Your task to perform on an android device: Open display settings Image 0: 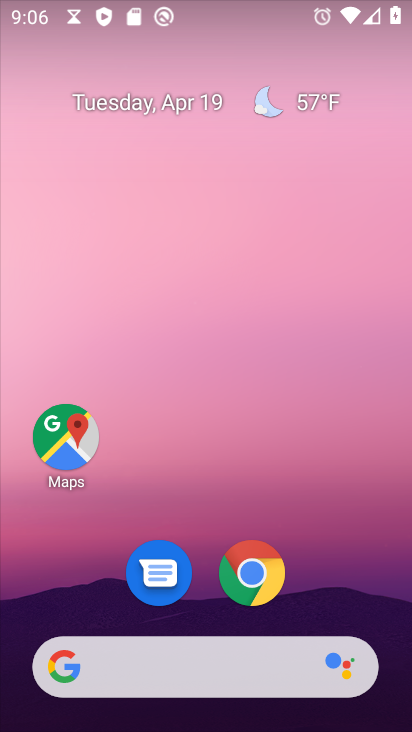
Step 0: drag from (325, 601) to (269, 110)
Your task to perform on an android device: Open display settings Image 1: 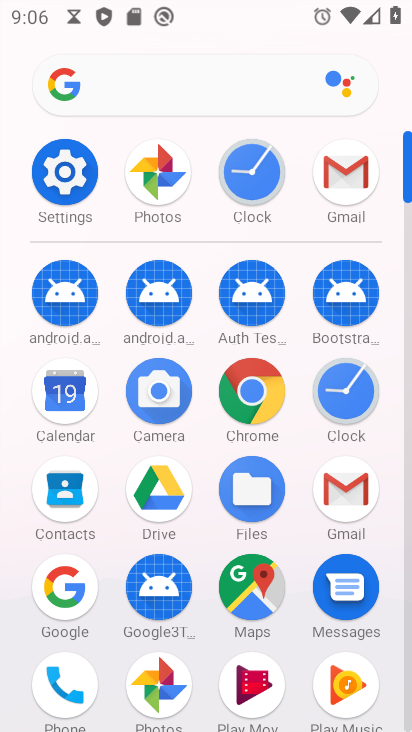
Step 1: click (57, 169)
Your task to perform on an android device: Open display settings Image 2: 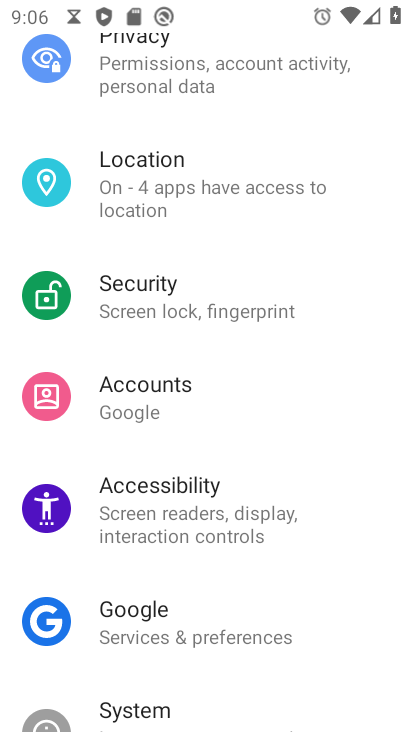
Step 2: drag from (259, 199) to (238, 647)
Your task to perform on an android device: Open display settings Image 3: 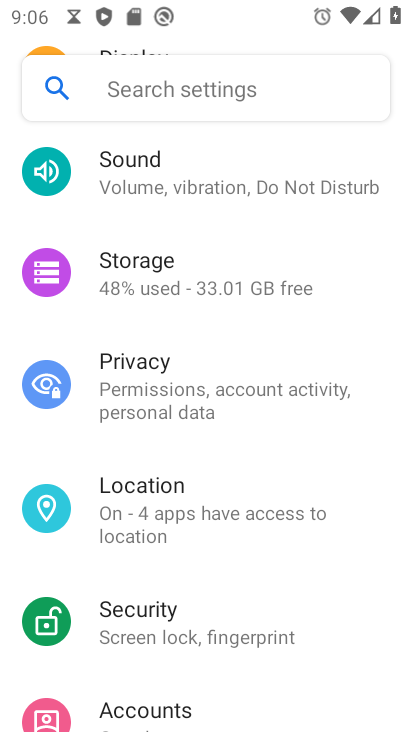
Step 3: drag from (237, 206) to (177, 569)
Your task to perform on an android device: Open display settings Image 4: 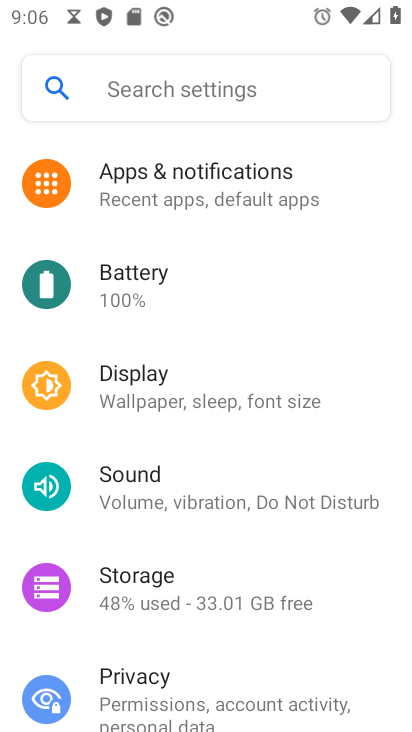
Step 4: click (153, 386)
Your task to perform on an android device: Open display settings Image 5: 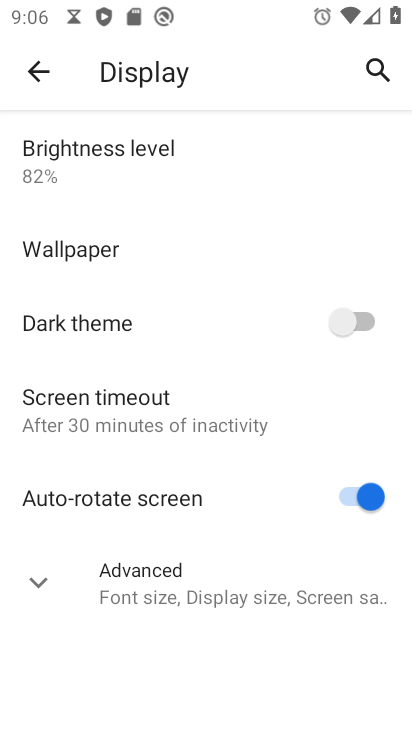
Step 5: task complete